Your task to perform on an android device: Open the stopwatch Image 0: 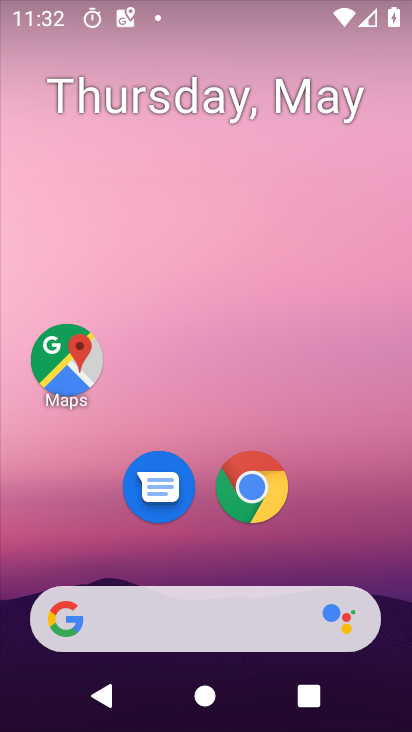
Step 0: drag from (309, 511) to (248, 73)
Your task to perform on an android device: Open the stopwatch Image 1: 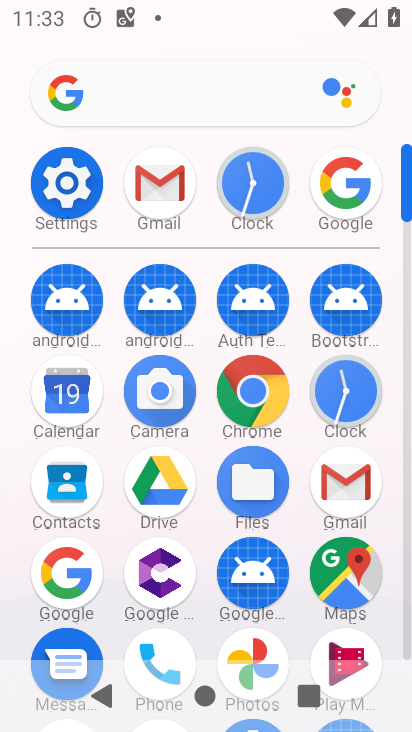
Step 1: click (258, 202)
Your task to perform on an android device: Open the stopwatch Image 2: 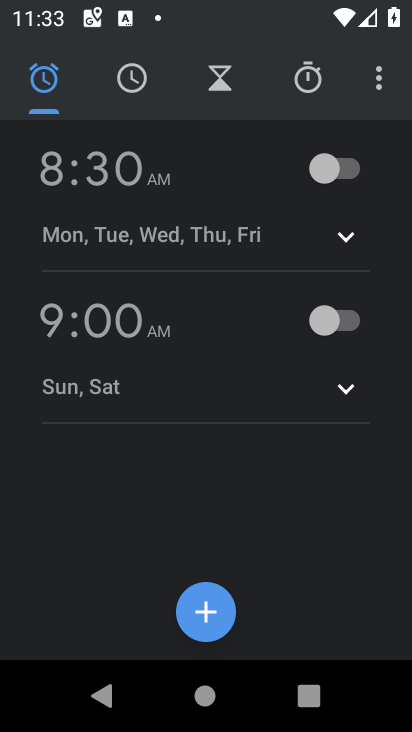
Step 2: click (310, 87)
Your task to perform on an android device: Open the stopwatch Image 3: 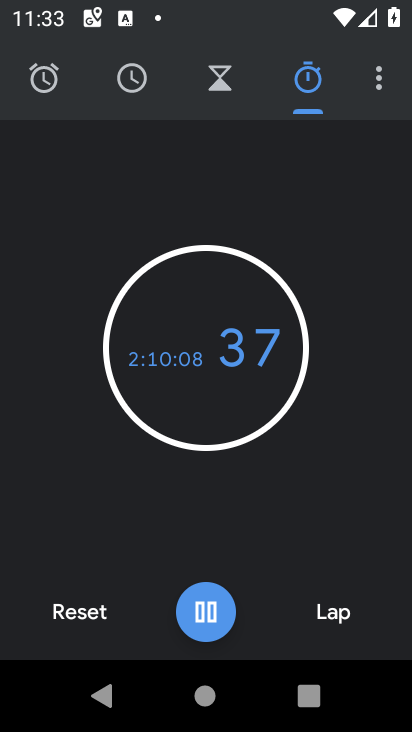
Step 3: task complete